Your task to perform on an android device: Open the Play Movies app and select the watchlist tab. Image 0: 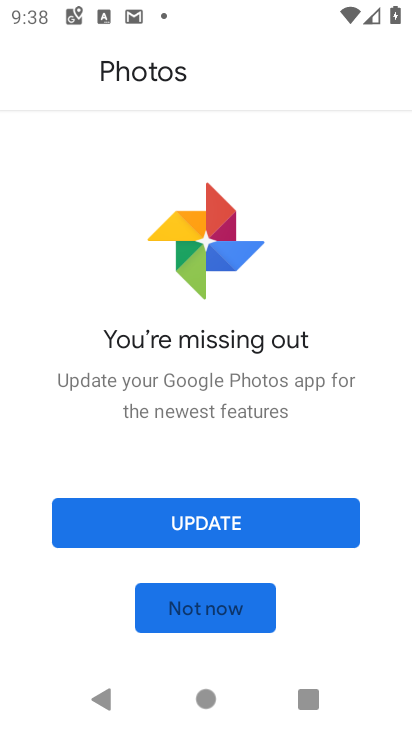
Step 0: press home button
Your task to perform on an android device: Open the Play Movies app and select the watchlist tab. Image 1: 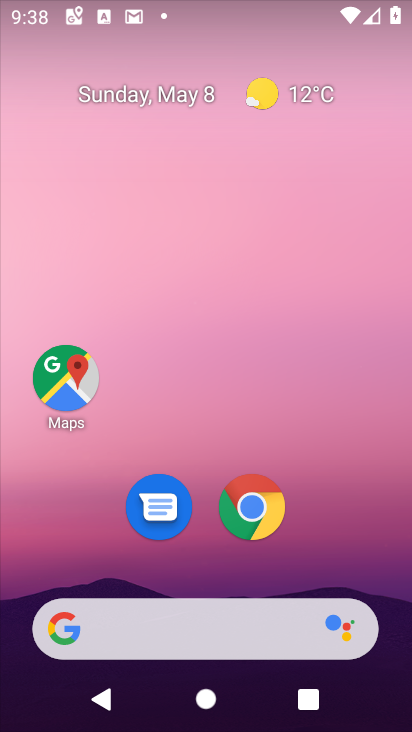
Step 1: drag from (266, 692) to (249, 1)
Your task to perform on an android device: Open the Play Movies app and select the watchlist tab. Image 2: 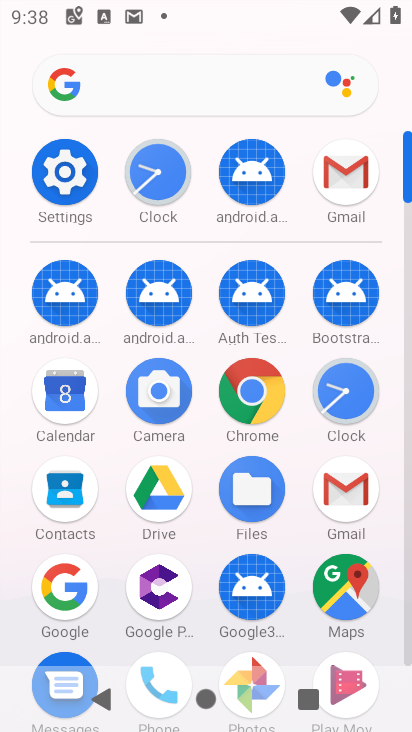
Step 2: drag from (257, 584) to (339, 103)
Your task to perform on an android device: Open the Play Movies app and select the watchlist tab. Image 3: 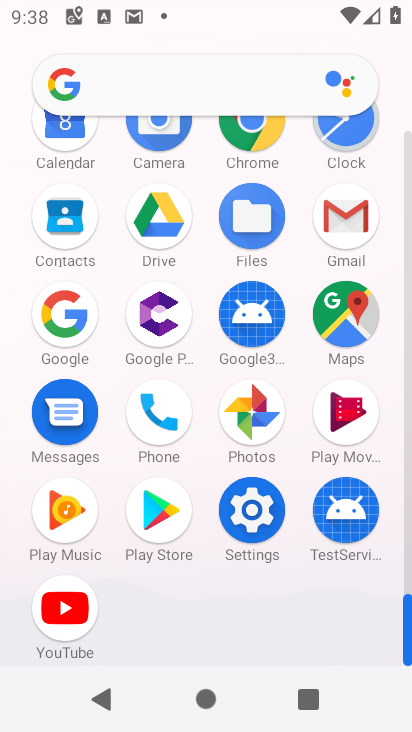
Step 3: click (342, 411)
Your task to perform on an android device: Open the Play Movies app and select the watchlist tab. Image 4: 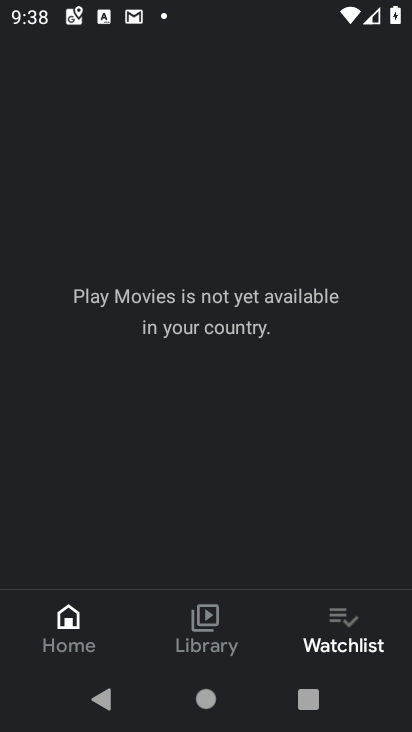
Step 4: click (333, 612)
Your task to perform on an android device: Open the Play Movies app and select the watchlist tab. Image 5: 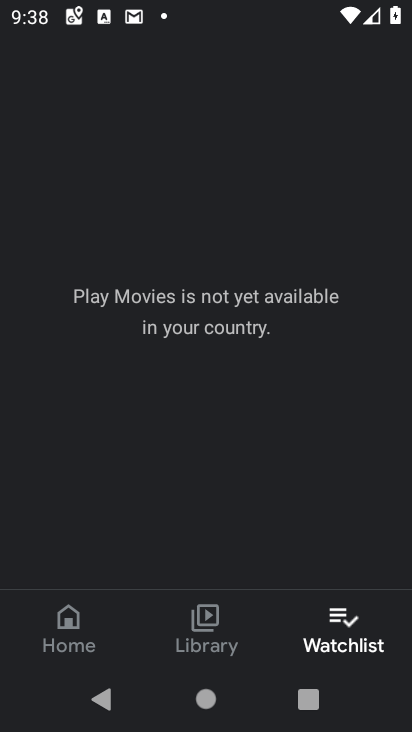
Step 5: task complete